Your task to perform on an android device: Open accessibility settings Image 0: 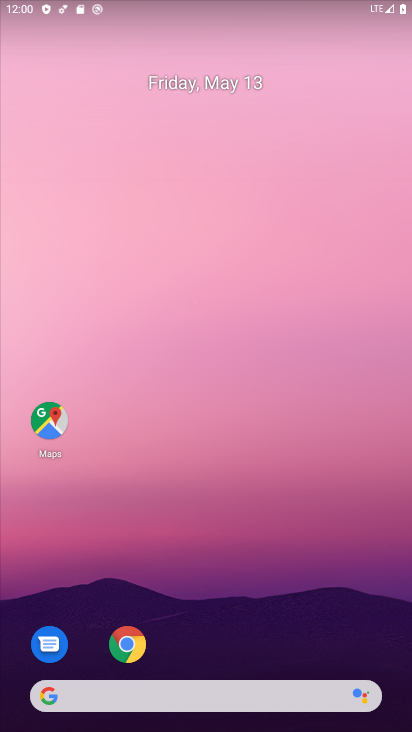
Step 0: drag from (381, 657) to (150, 58)
Your task to perform on an android device: Open accessibility settings Image 1: 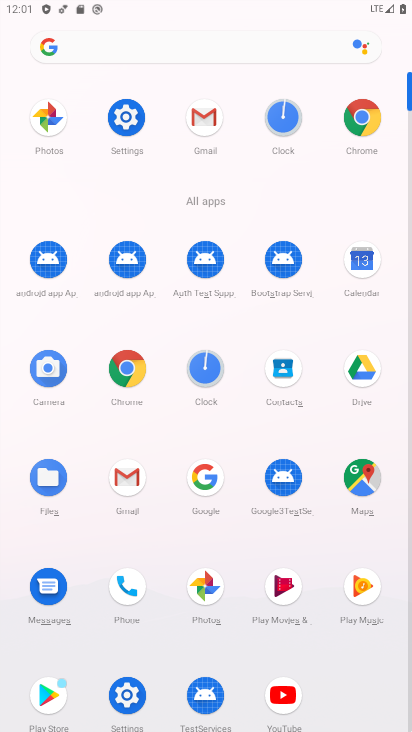
Step 1: click (118, 687)
Your task to perform on an android device: Open accessibility settings Image 2: 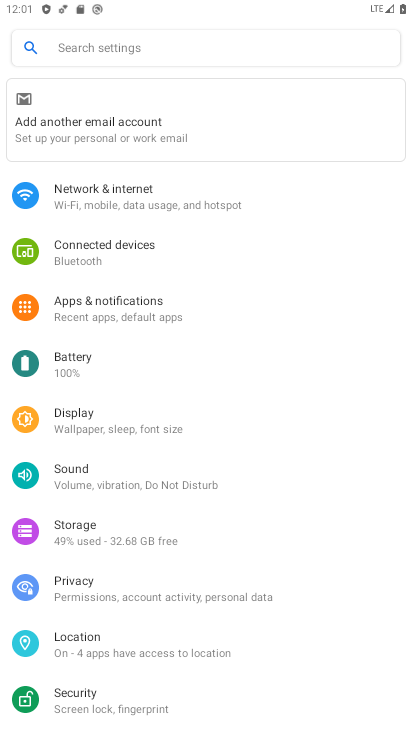
Step 2: drag from (101, 673) to (138, 197)
Your task to perform on an android device: Open accessibility settings Image 3: 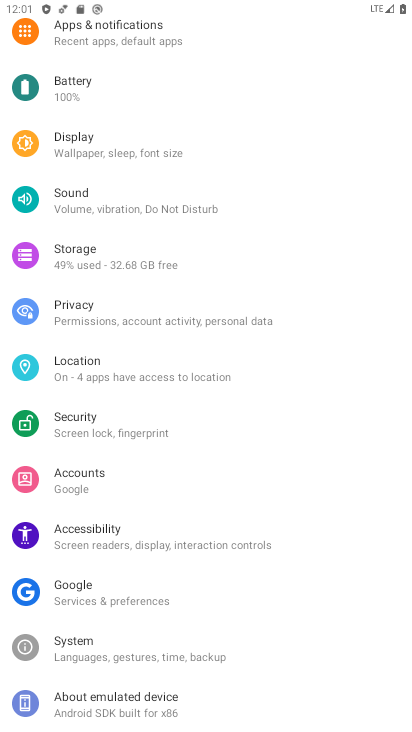
Step 3: click (147, 536)
Your task to perform on an android device: Open accessibility settings Image 4: 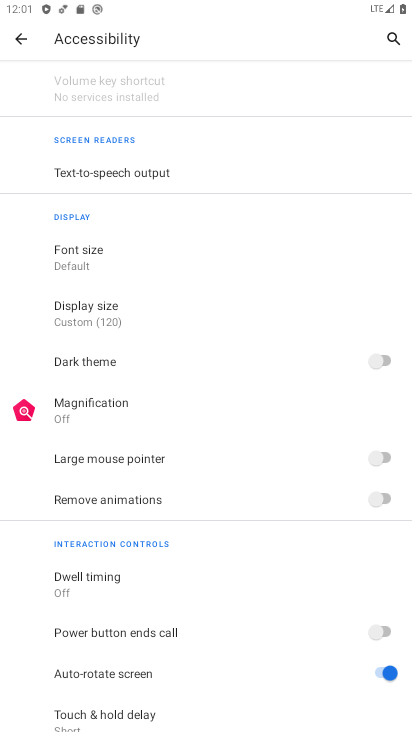
Step 4: task complete